Your task to perform on an android device: Show me the alarms in the clock app Image 0: 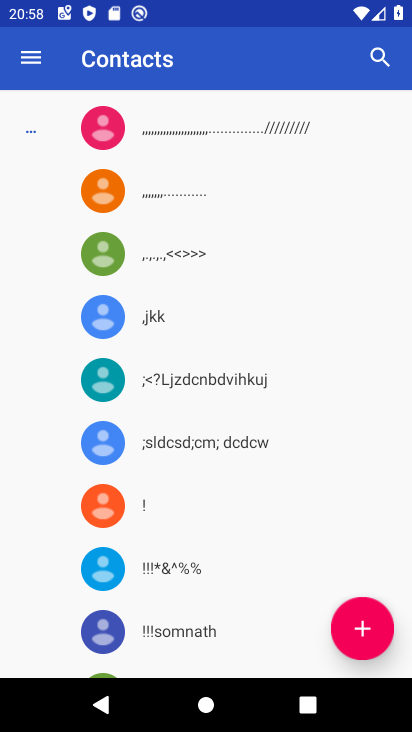
Step 0: press home button
Your task to perform on an android device: Show me the alarms in the clock app Image 1: 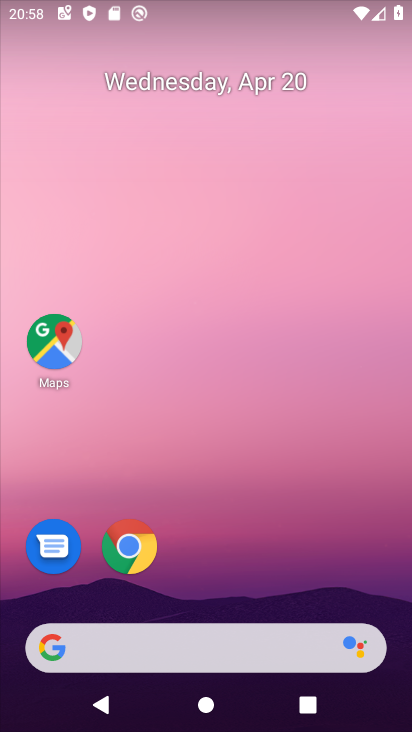
Step 1: drag from (297, 575) to (282, 71)
Your task to perform on an android device: Show me the alarms in the clock app Image 2: 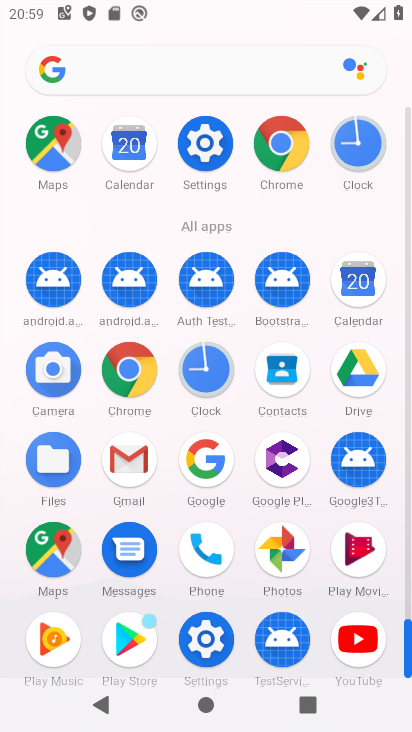
Step 2: click (376, 142)
Your task to perform on an android device: Show me the alarms in the clock app Image 3: 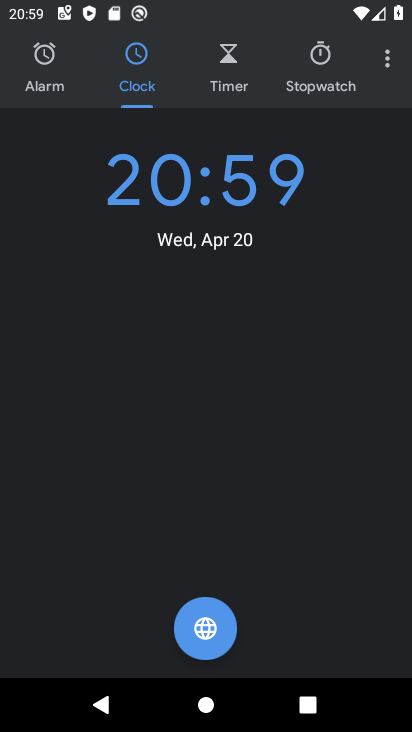
Step 3: click (50, 59)
Your task to perform on an android device: Show me the alarms in the clock app Image 4: 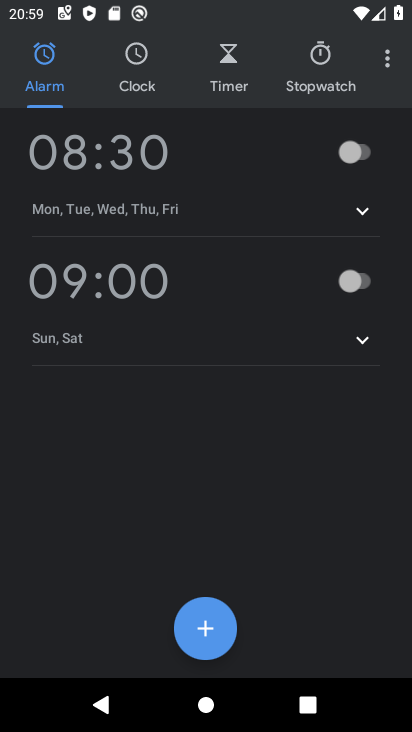
Step 4: task complete